Your task to perform on an android device: turn pop-ups on in chrome Image 0: 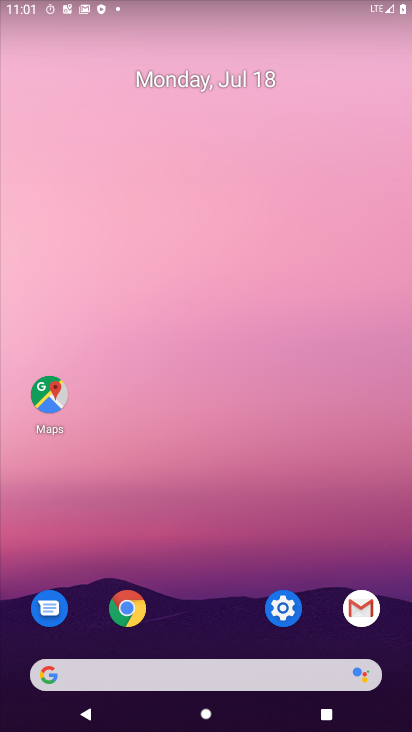
Step 0: click (142, 626)
Your task to perform on an android device: turn pop-ups on in chrome Image 1: 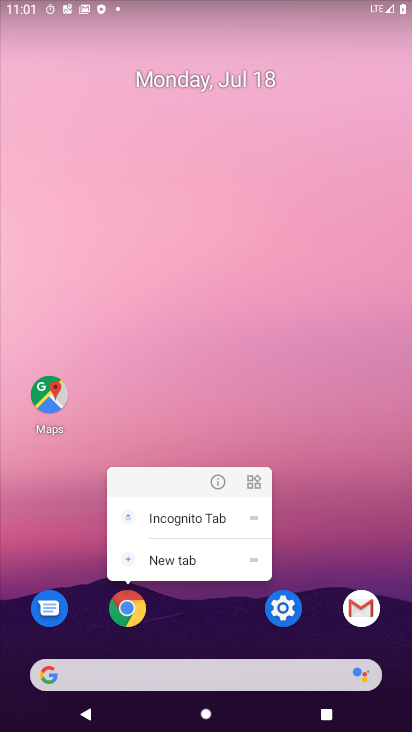
Step 1: click (142, 626)
Your task to perform on an android device: turn pop-ups on in chrome Image 2: 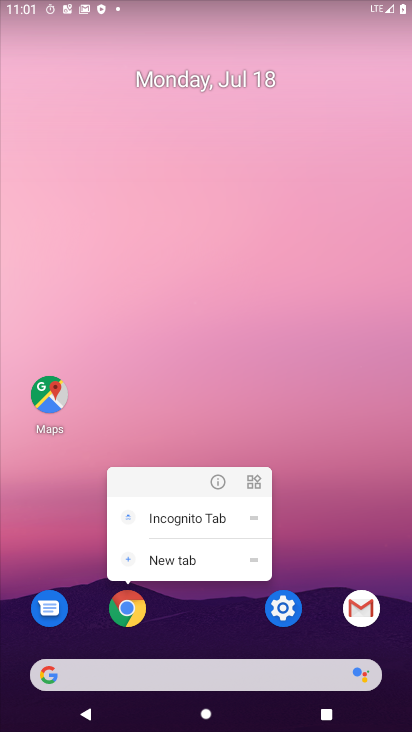
Step 2: click (120, 613)
Your task to perform on an android device: turn pop-ups on in chrome Image 3: 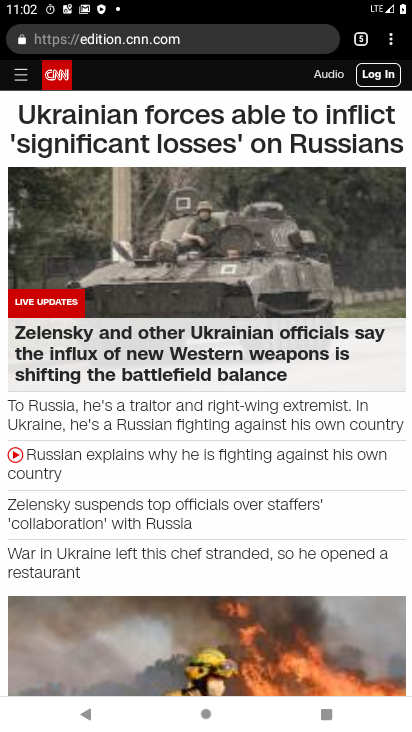
Step 3: click (392, 47)
Your task to perform on an android device: turn pop-ups on in chrome Image 4: 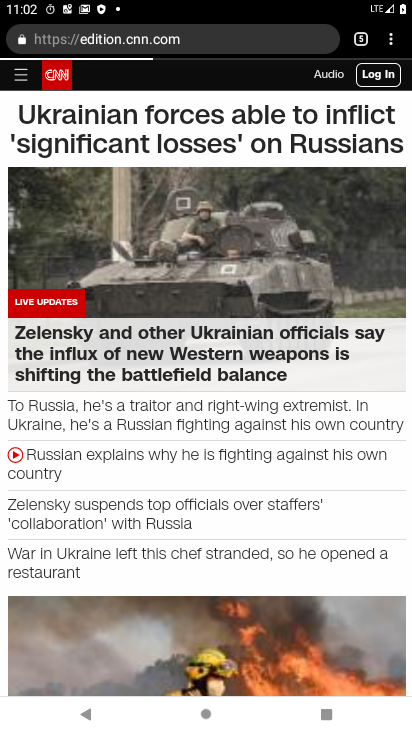
Step 4: click (392, 44)
Your task to perform on an android device: turn pop-ups on in chrome Image 5: 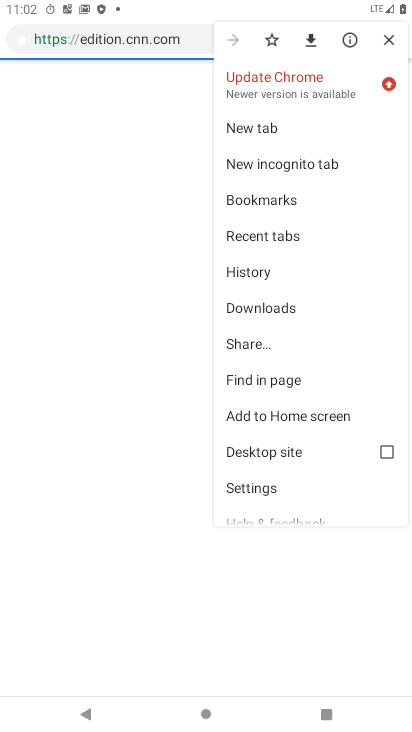
Step 5: click (253, 485)
Your task to perform on an android device: turn pop-ups on in chrome Image 6: 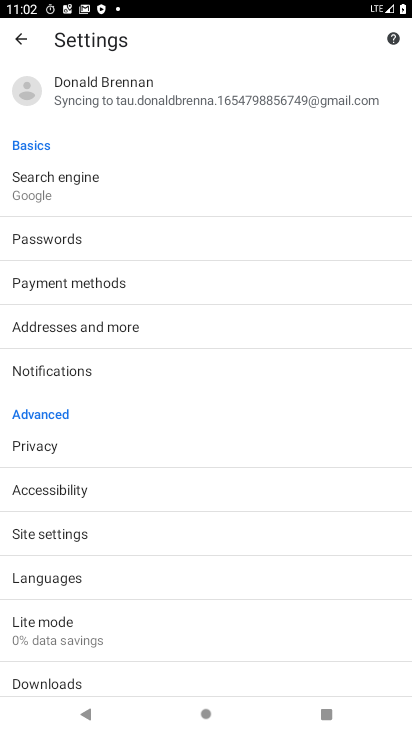
Step 6: click (67, 544)
Your task to perform on an android device: turn pop-ups on in chrome Image 7: 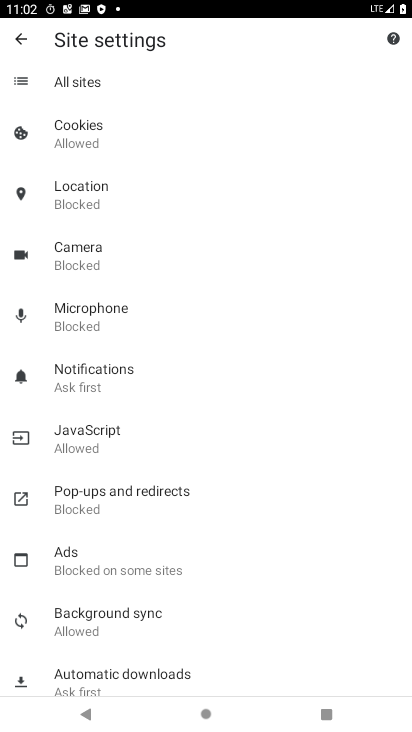
Step 7: click (97, 495)
Your task to perform on an android device: turn pop-ups on in chrome Image 8: 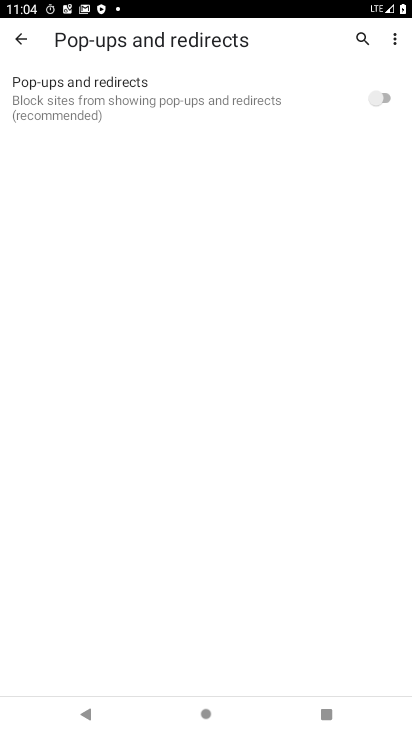
Step 8: click (356, 88)
Your task to perform on an android device: turn pop-ups on in chrome Image 9: 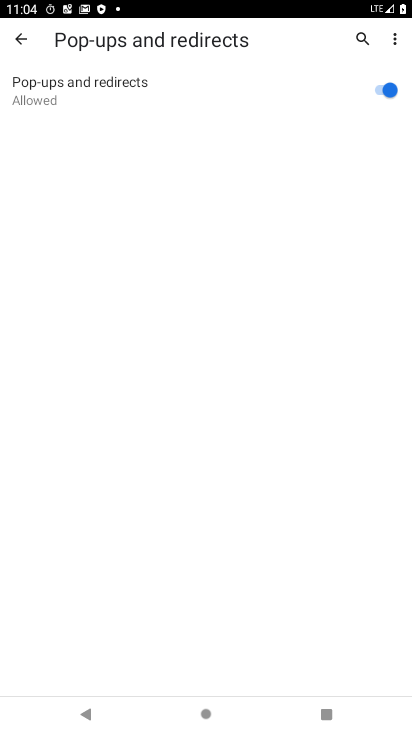
Step 9: task complete